Your task to perform on an android device: see tabs open on other devices in the chrome app Image 0: 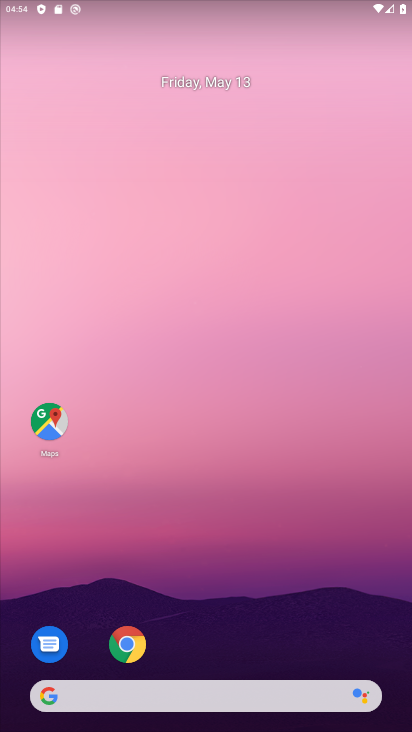
Step 0: click (128, 644)
Your task to perform on an android device: see tabs open on other devices in the chrome app Image 1: 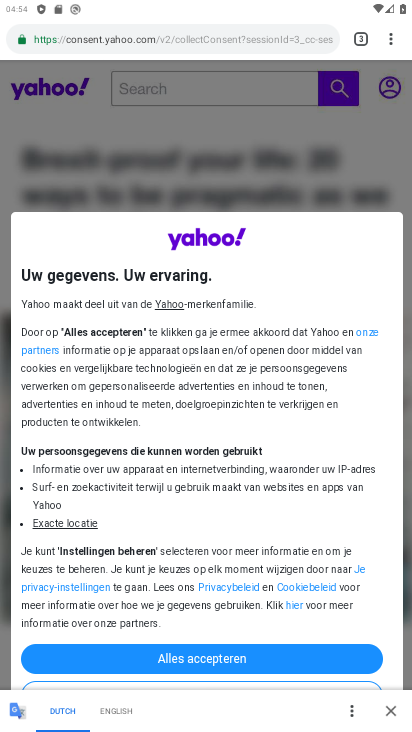
Step 1: click (384, 41)
Your task to perform on an android device: see tabs open on other devices in the chrome app Image 2: 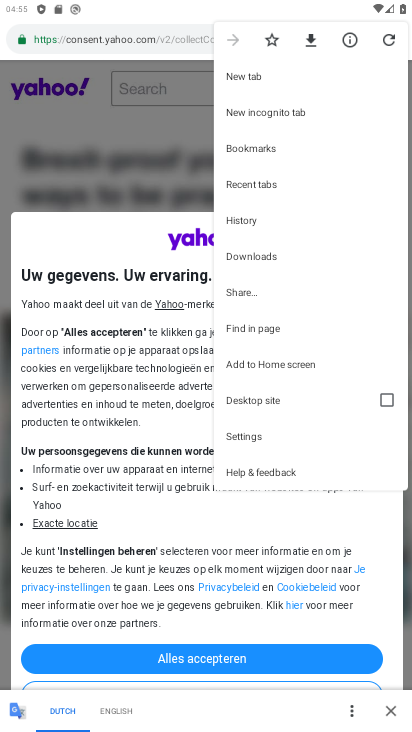
Step 2: click (248, 177)
Your task to perform on an android device: see tabs open on other devices in the chrome app Image 3: 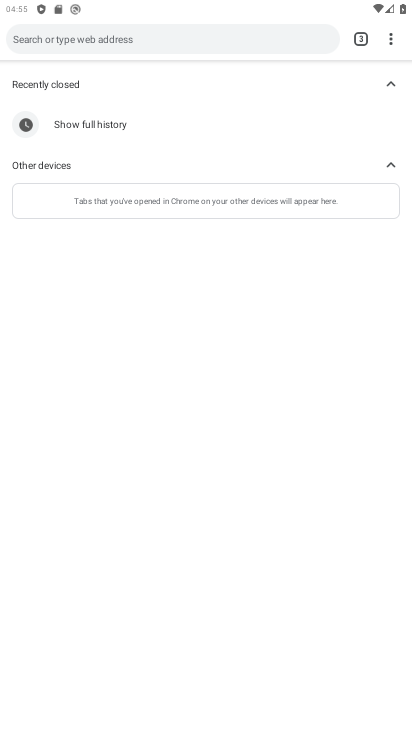
Step 3: click (386, 34)
Your task to perform on an android device: see tabs open on other devices in the chrome app Image 4: 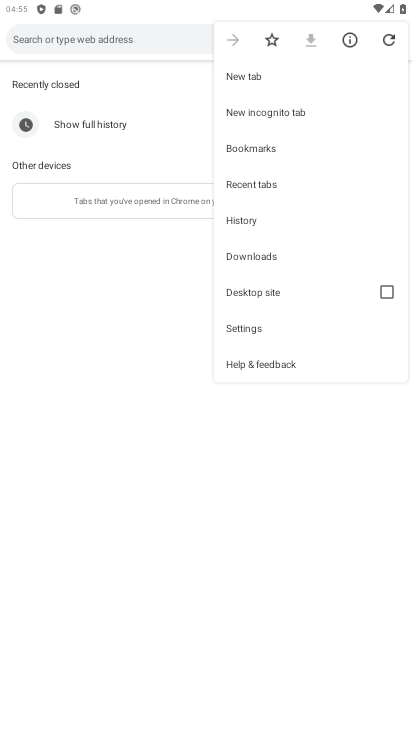
Step 4: click (248, 173)
Your task to perform on an android device: see tabs open on other devices in the chrome app Image 5: 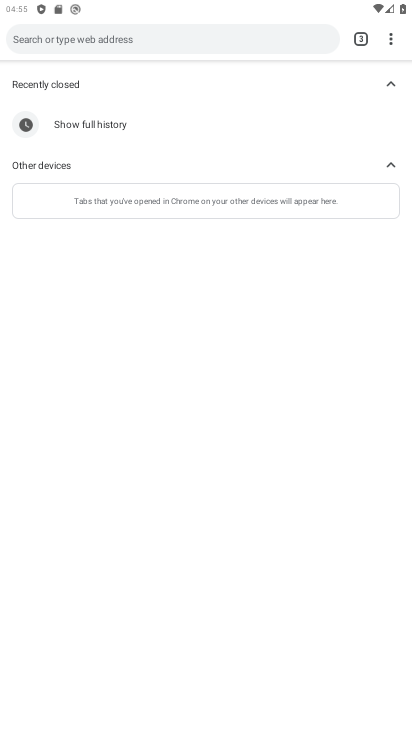
Step 5: task complete